Your task to perform on an android device: see tabs open on other devices in the chrome app Image 0: 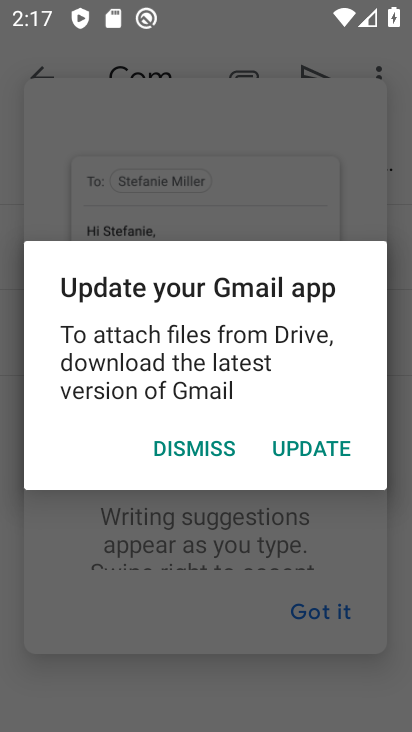
Step 0: press home button
Your task to perform on an android device: see tabs open on other devices in the chrome app Image 1: 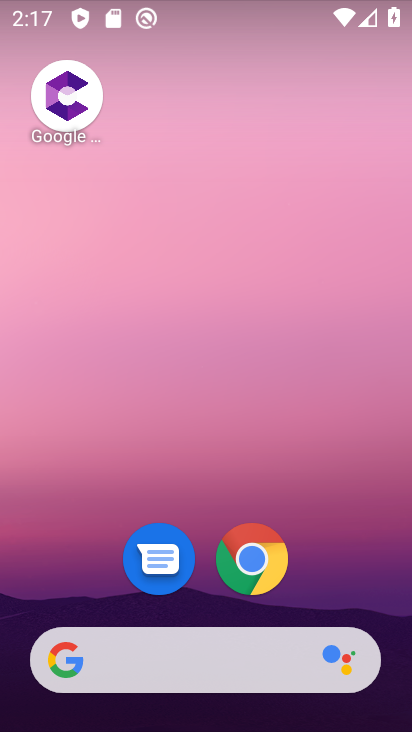
Step 1: drag from (201, 581) to (282, 46)
Your task to perform on an android device: see tabs open on other devices in the chrome app Image 2: 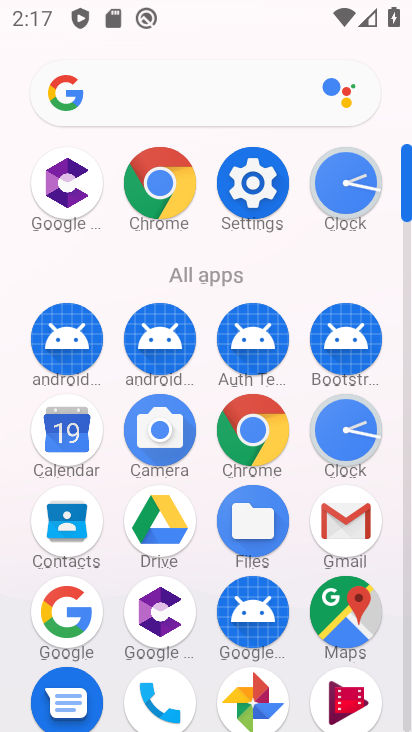
Step 2: click (261, 431)
Your task to perform on an android device: see tabs open on other devices in the chrome app Image 3: 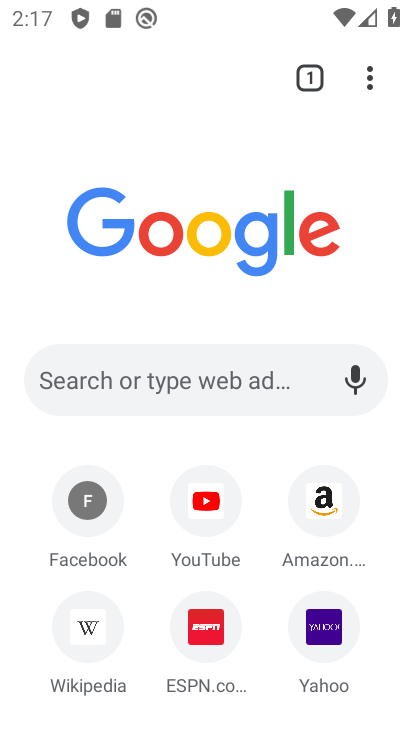
Step 3: click (377, 84)
Your task to perform on an android device: see tabs open on other devices in the chrome app Image 4: 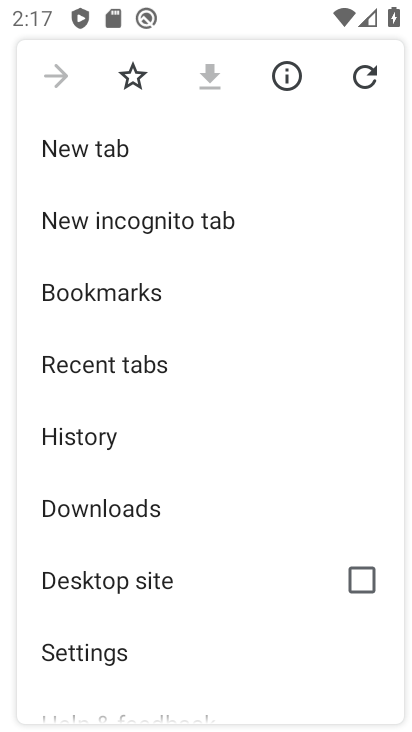
Step 4: click (115, 365)
Your task to perform on an android device: see tabs open on other devices in the chrome app Image 5: 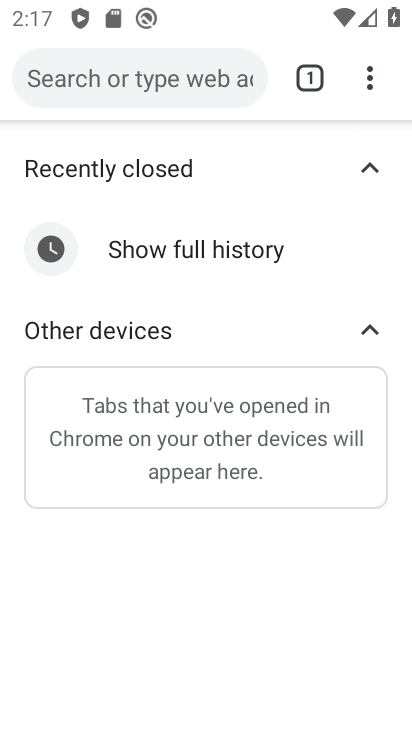
Step 5: task complete